Your task to perform on an android device: Open the phone app and click the voicemail tab. Image 0: 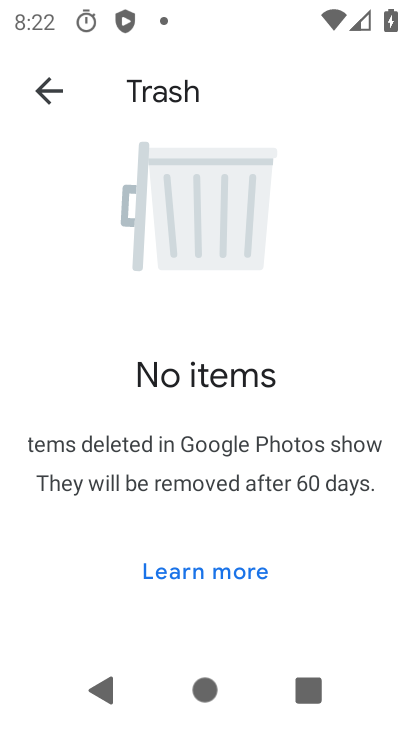
Step 0: press home button
Your task to perform on an android device: Open the phone app and click the voicemail tab. Image 1: 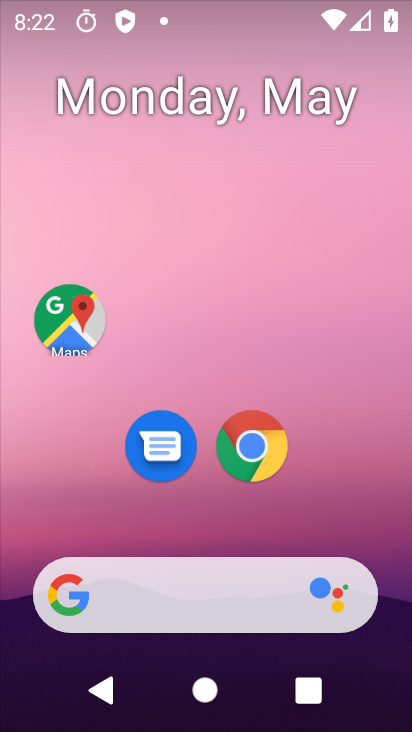
Step 1: drag from (335, 545) to (320, 11)
Your task to perform on an android device: Open the phone app and click the voicemail tab. Image 2: 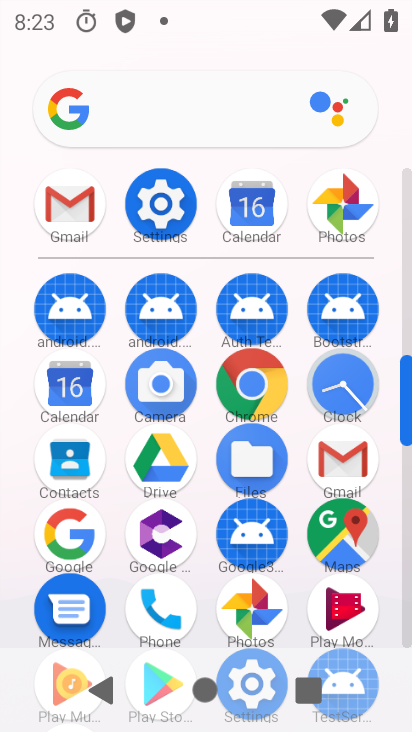
Step 2: click (155, 603)
Your task to perform on an android device: Open the phone app and click the voicemail tab. Image 3: 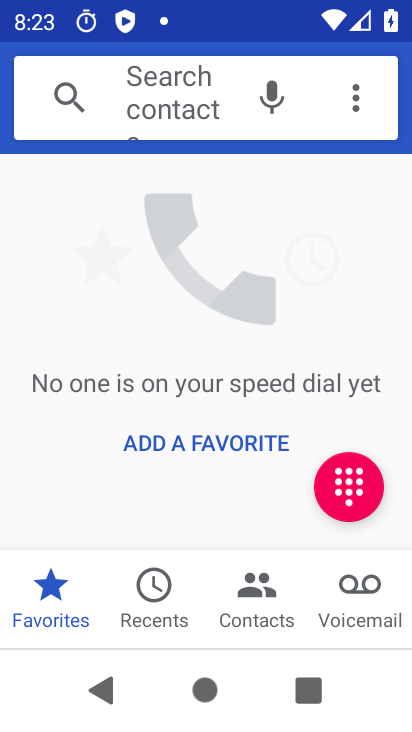
Step 3: click (393, 611)
Your task to perform on an android device: Open the phone app and click the voicemail tab. Image 4: 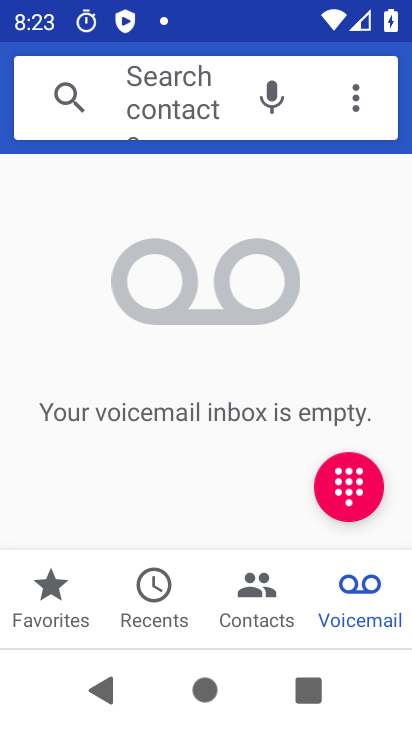
Step 4: task complete